Your task to perform on an android device: refresh tabs in the chrome app Image 0: 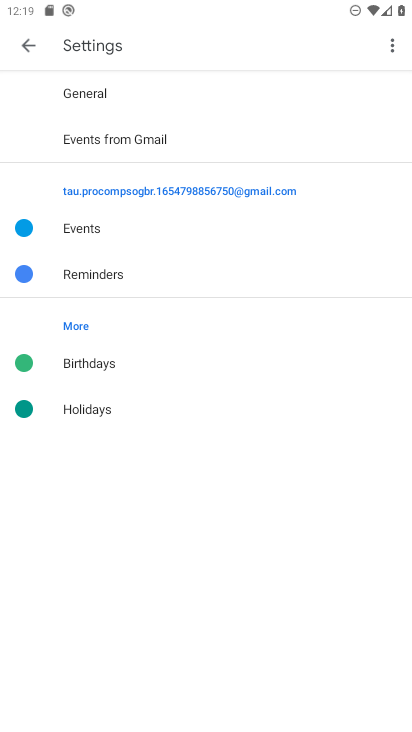
Step 0: press home button
Your task to perform on an android device: refresh tabs in the chrome app Image 1: 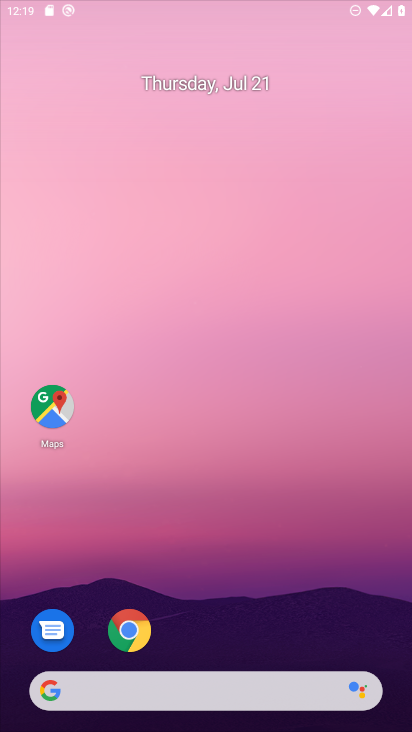
Step 1: drag from (198, 637) to (319, 183)
Your task to perform on an android device: refresh tabs in the chrome app Image 2: 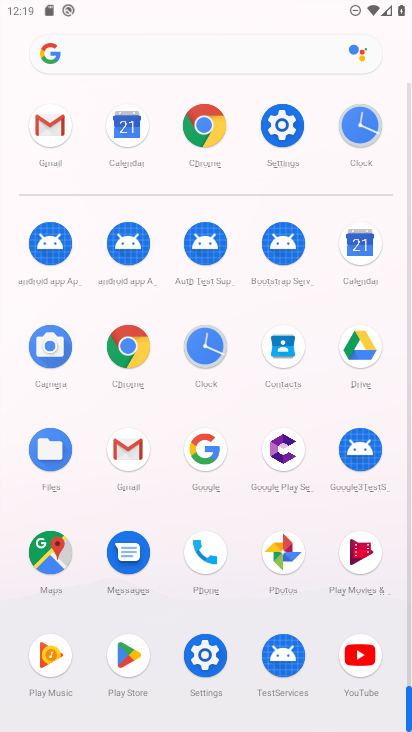
Step 2: click (129, 346)
Your task to perform on an android device: refresh tabs in the chrome app Image 3: 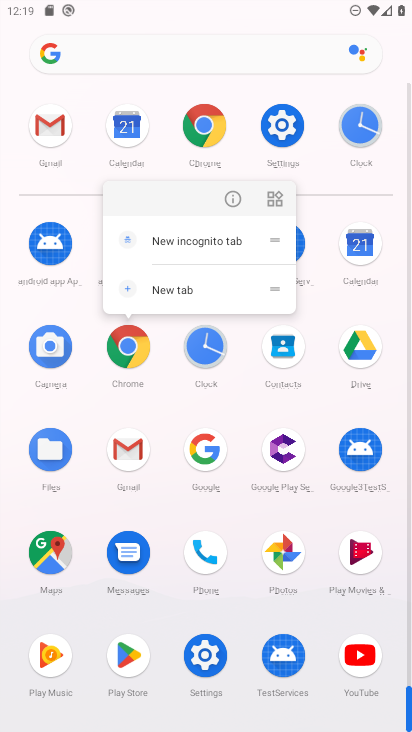
Step 3: click (231, 200)
Your task to perform on an android device: refresh tabs in the chrome app Image 4: 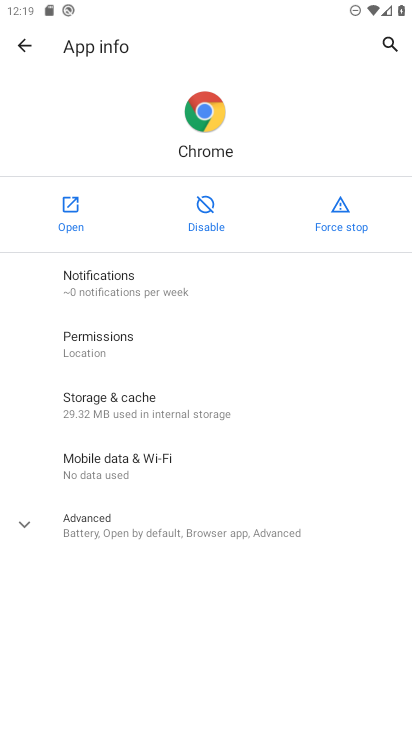
Step 4: click (72, 221)
Your task to perform on an android device: refresh tabs in the chrome app Image 5: 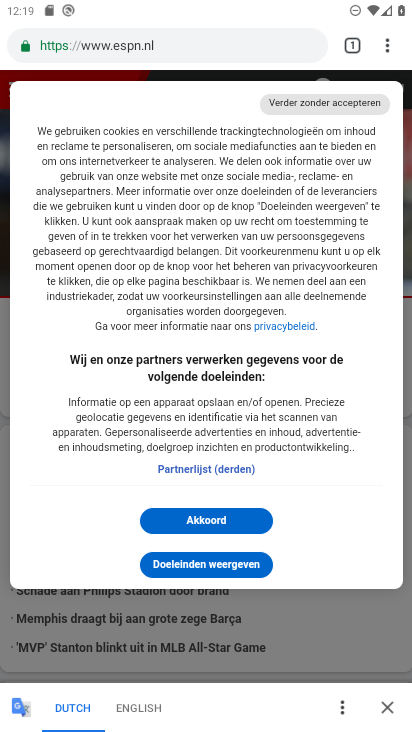
Step 5: click (386, 42)
Your task to perform on an android device: refresh tabs in the chrome app Image 6: 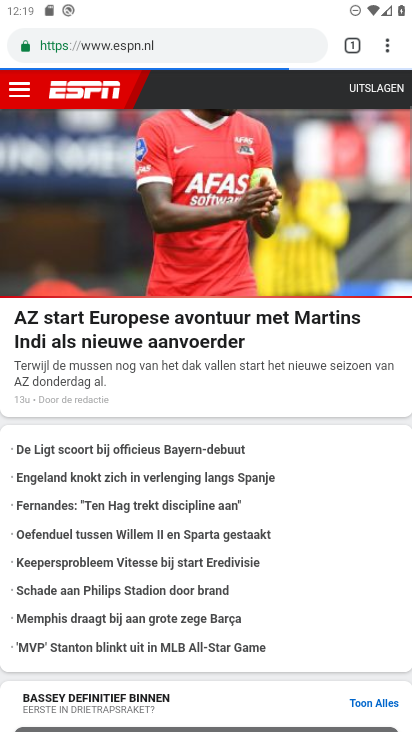
Step 6: task complete